Your task to perform on an android device: Go to eBay Image 0: 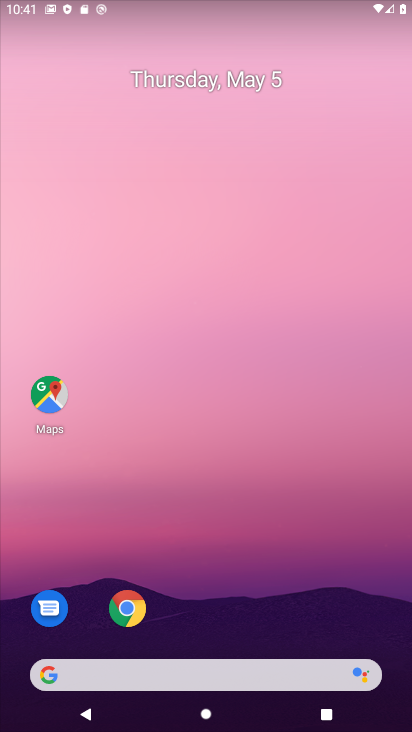
Step 0: click (129, 610)
Your task to perform on an android device: Go to eBay Image 1: 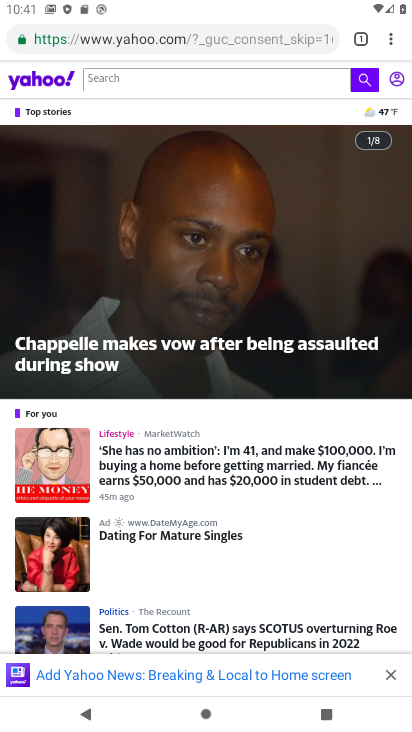
Step 1: click (395, 38)
Your task to perform on an android device: Go to eBay Image 2: 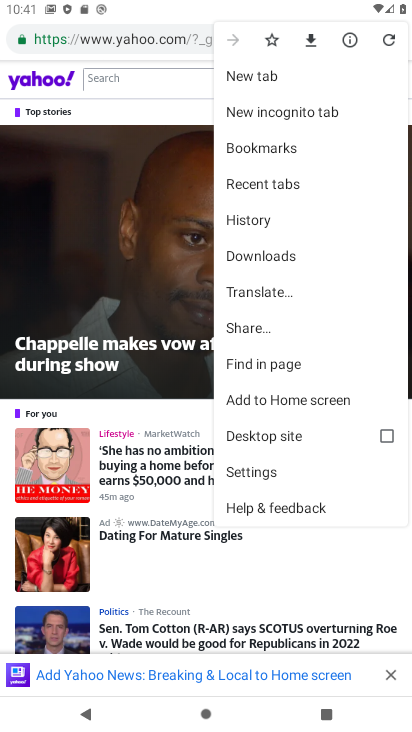
Step 2: click (232, 76)
Your task to perform on an android device: Go to eBay Image 3: 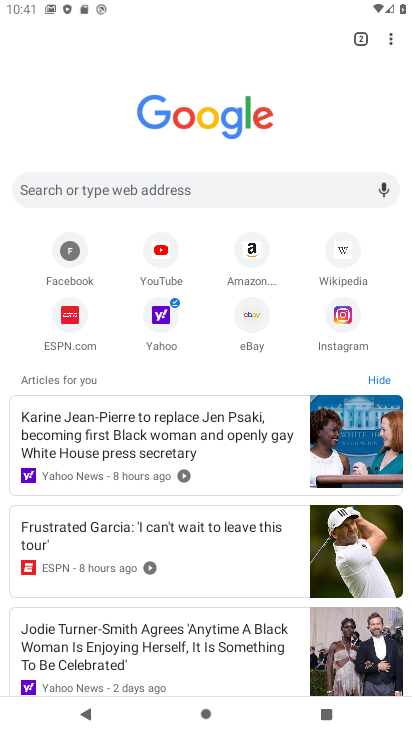
Step 3: click (182, 184)
Your task to perform on an android device: Go to eBay Image 4: 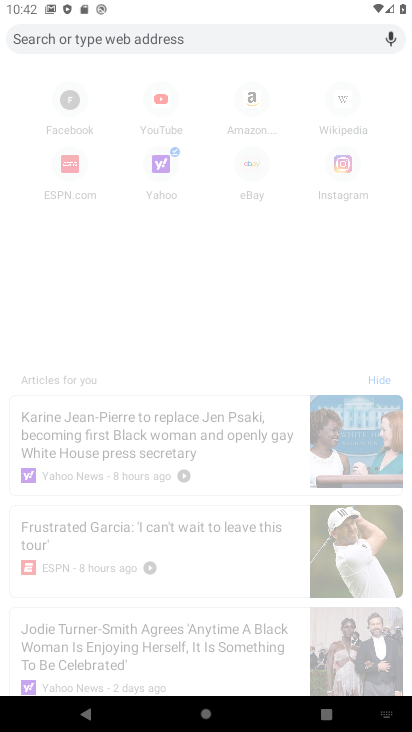
Step 4: type "ebay"
Your task to perform on an android device: Go to eBay Image 5: 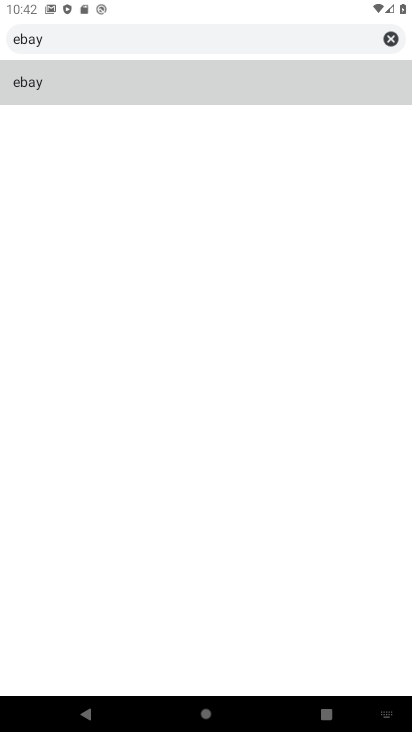
Step 5: click (53, 86)
Your task to perform on an android device: Go to eBay Image 6: 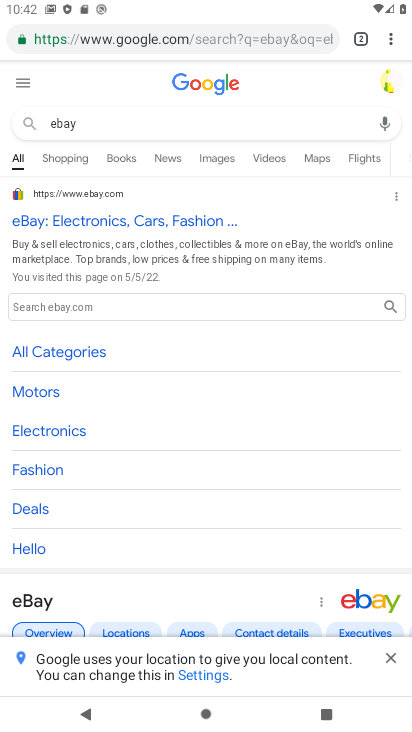
Step 6: task complete